Your task to perform on an android device: Open Yahoo.com Image 0: 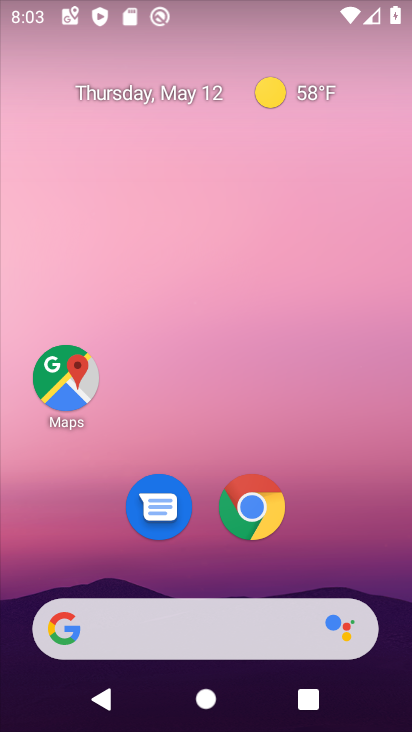
Step 0: click (243, 519)
Your task to perform on an android device: Open Yahoo.com Image 1: 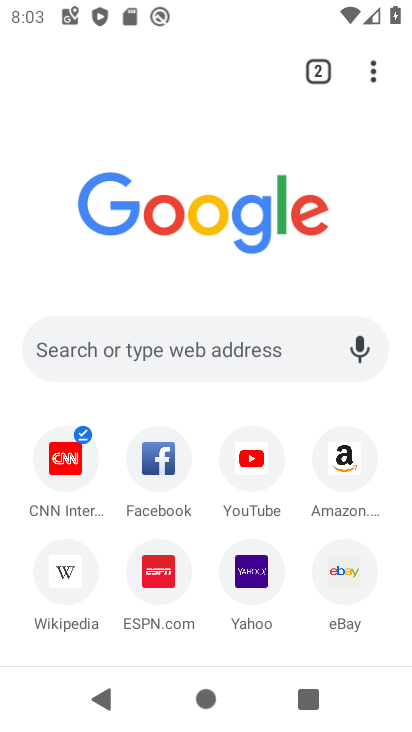
Step 1: click (234, 578)
Your task to perform on an android device: Open Yahoo.com Image 2: 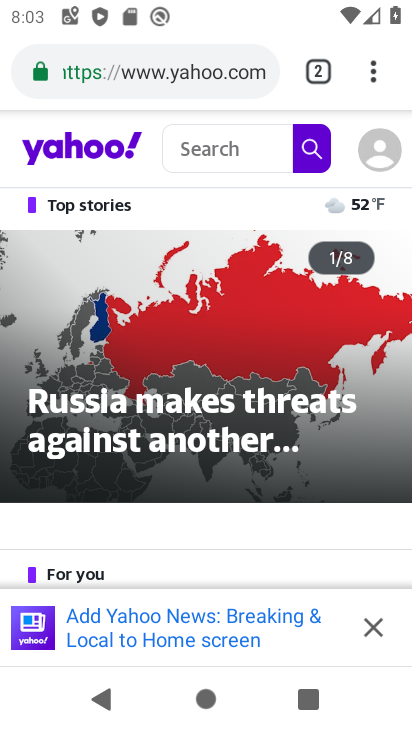
Step 2: task complete